Your task to perform on an android device: What is the recent news? Image 0: 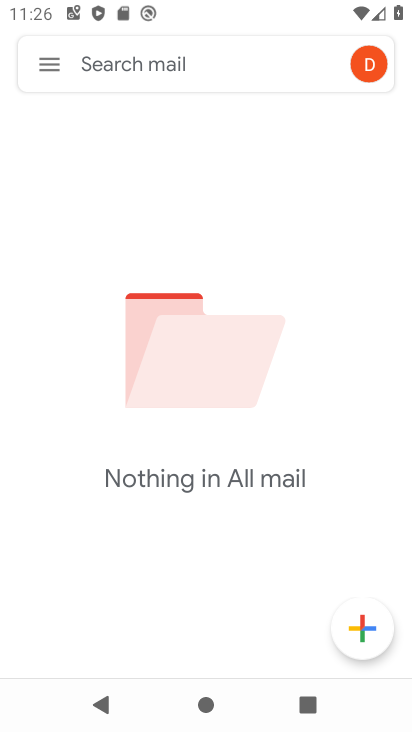
Step 0: press home button
Your task to perform on an android device: What is the recent news? Image 1: 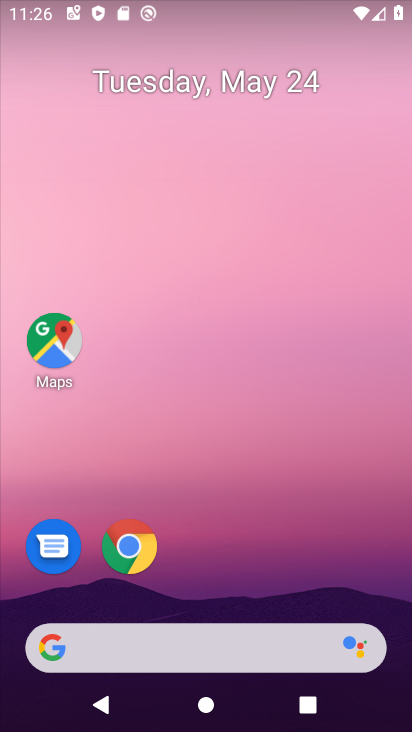
Step 1: drag from (207, 572) to (196, 248)
Your task to perform on an android device: What is the recent news? Image 2: 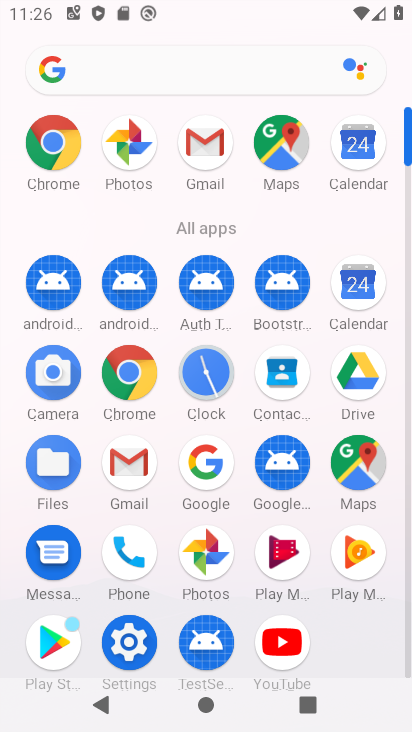
Step 2: click (57, 153)
Your task to perform on an android device: What is the recent news? Image 3: 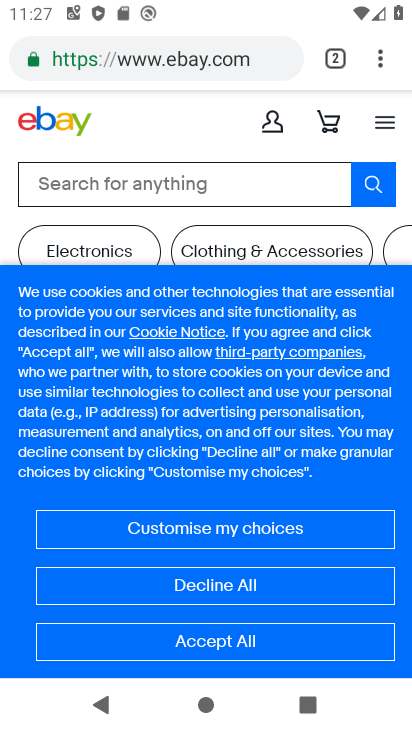
Step 3: click (128, 65)
Your task to perform on an android device: What is the recent news? Image 4: 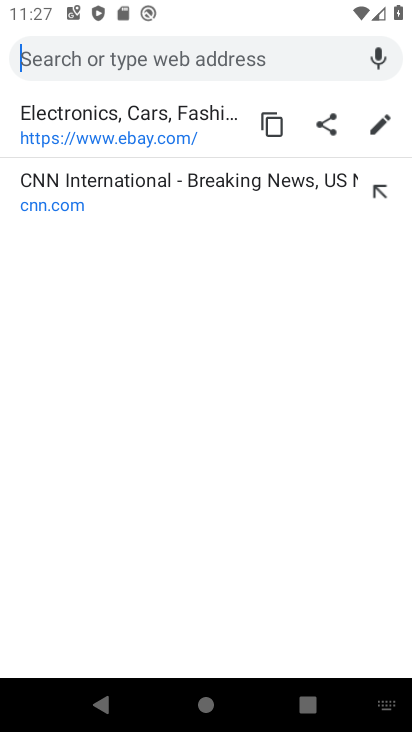
Step 4: type "What is the recent news?"
Your task to perform on an android device: What is the recent news? Image 5: 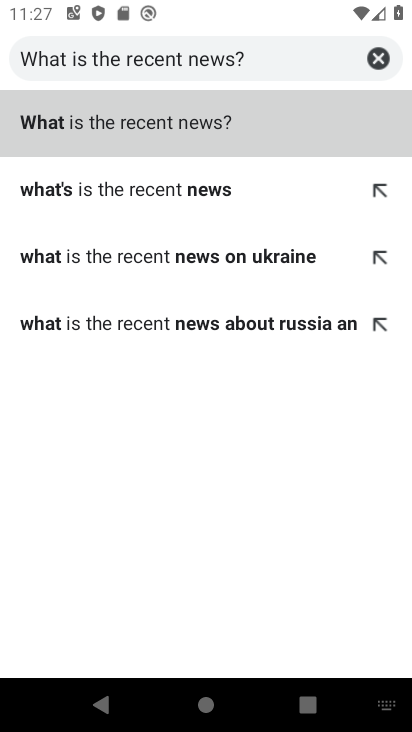
Step 5: click (153, 142)
Your task to perform on an android device: What is the recent news? Image 6: 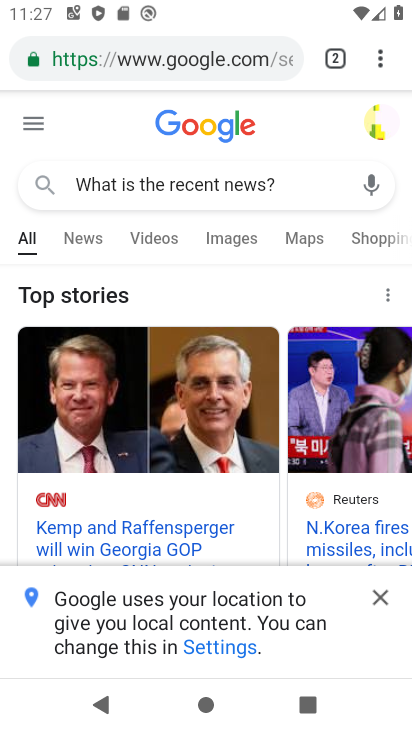
Step 6: task complete